Your task to perform on an android device: turn on airplane mode Image 0: 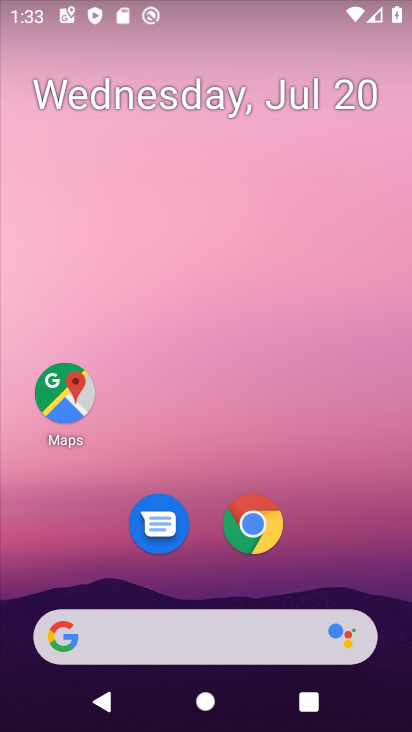
Step 0: drag from (313, 523) to (277, 55)
Your task to perform on an android device: turn on airplane mode Image 1: 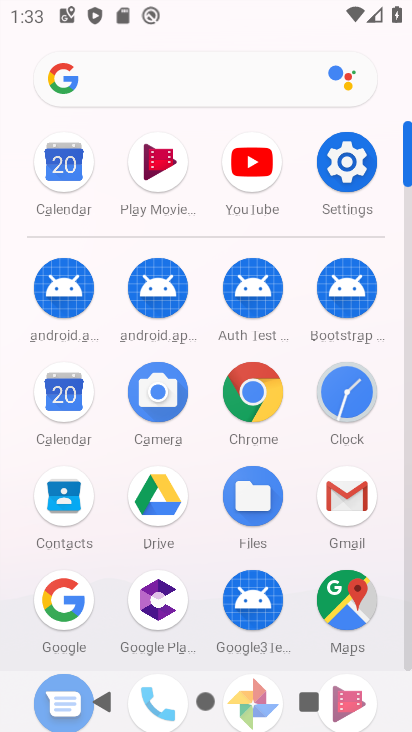
Step 1: click (340, 162)
Your task to perform on an android device: turn on airplane mode Image 2: 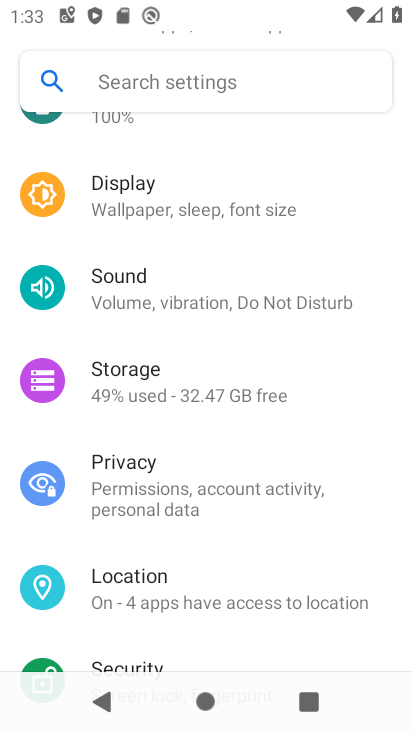
Step 2: drag from (275, 361) to (270, 581)
Your task to perform on an android device: turn on airplane mode Image 3: 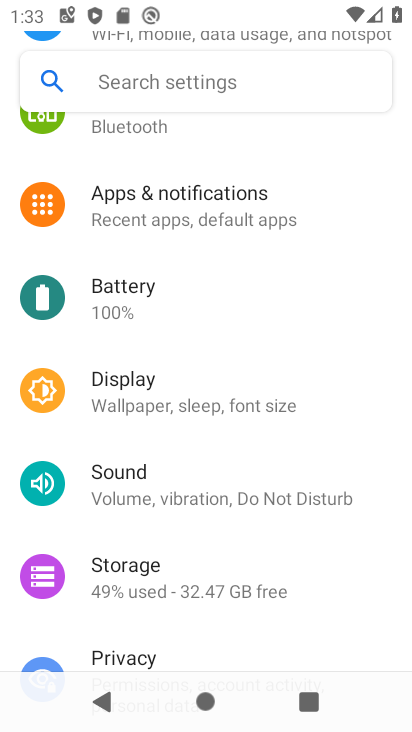
Step 3: drag from (213, 296) to (248, 531)
Your task to perform on an android device: turn on airplane mode Image 4: 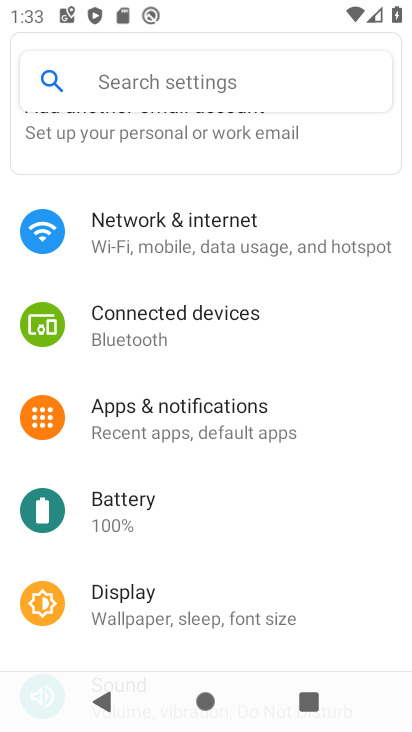
Step 4: click (241, 237)
Your task to perform on an android device: turn on airplane mode Image 5: 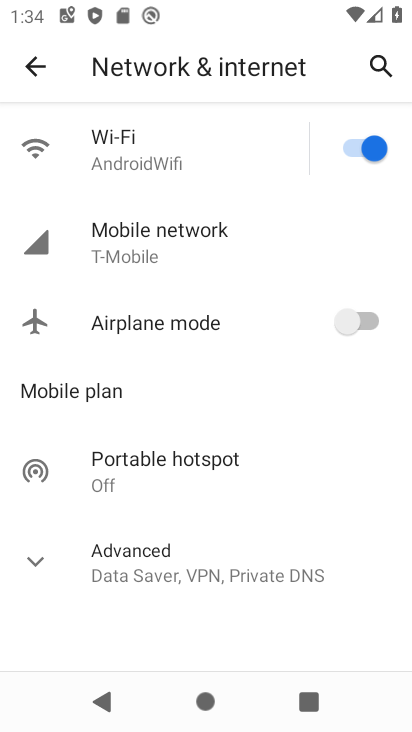
Step 5: click (354, 319)
Your task to perform on an android device: turn on airplane mode Image 6: 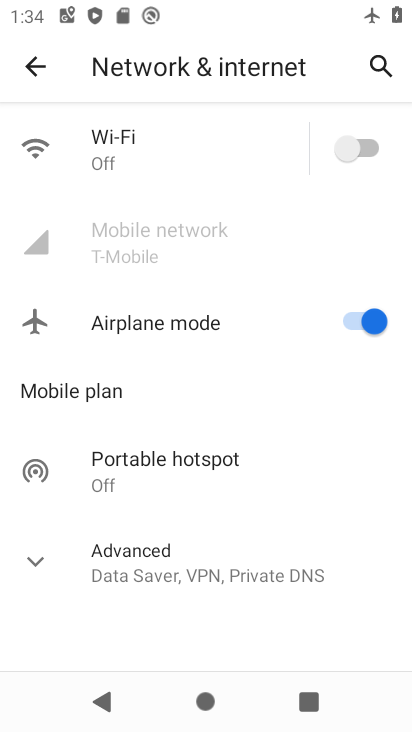
Step 6: task complete